Your task to perform on an android device: Open maps Image 0: 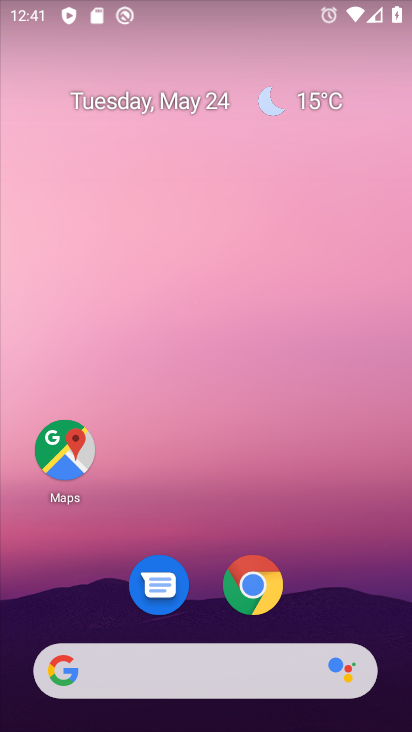
Step 0: click (71, 446)
Your task to perform on an android device: Open maps Image 1: 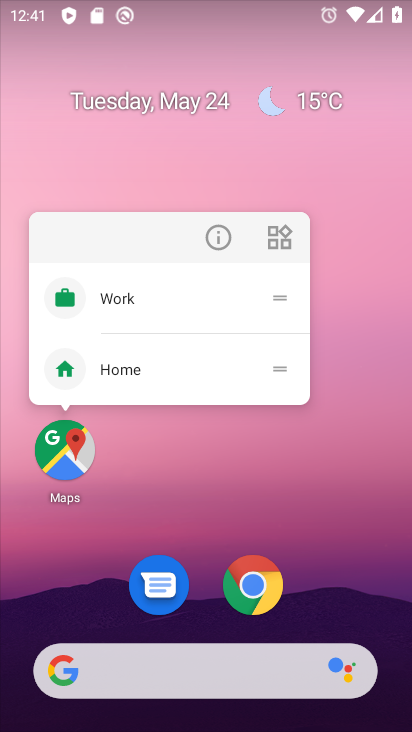
Step 1: click (71, 447)
Your task to perform on an android device: Open maps Image 2: 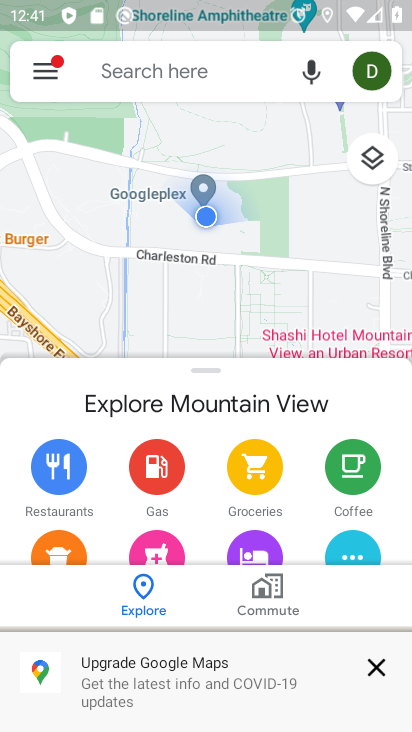
Step 2: task complete